Your task to perform on an android device: find which apps use the phone's location Image 0: 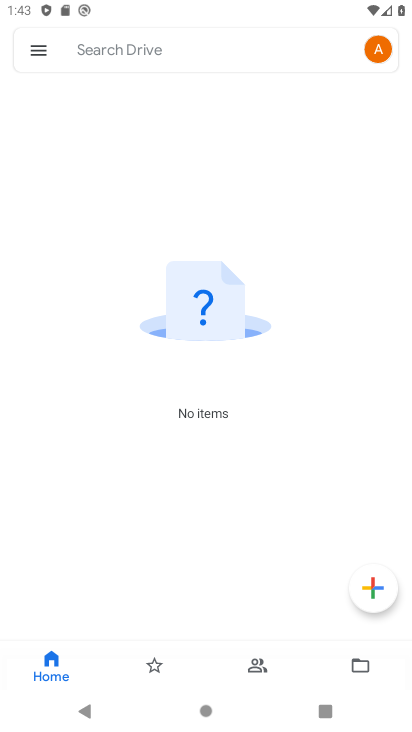
Step 0: press home button
Your task to perform on an android device: find which apps use the phone's location Image 1: 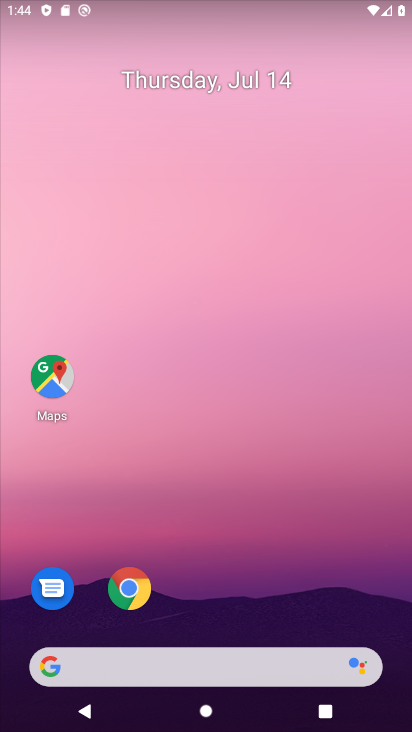
Step 1: drag from (135, 646) to (163, 164)
Your task to perform on an android device: find which apps use the phone's location Image 2: 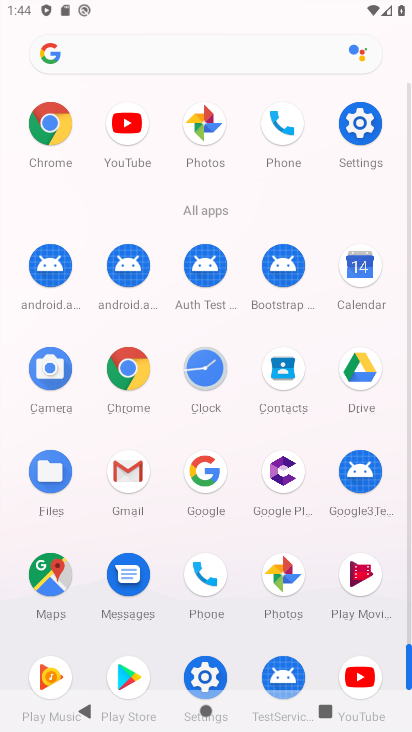
Step 2: click (364, 132)
Your task to perform on an android device: find which apps use the phone's location Image 3: 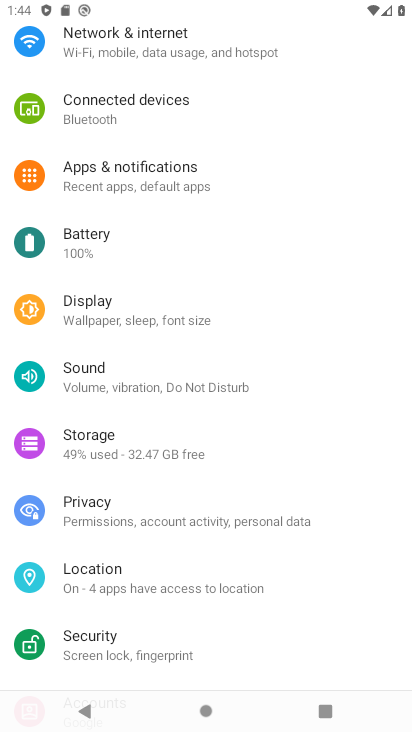
Step 3: click (130, 578)
Your task to perform on an android device: find which apps use the phone's location Image 4: 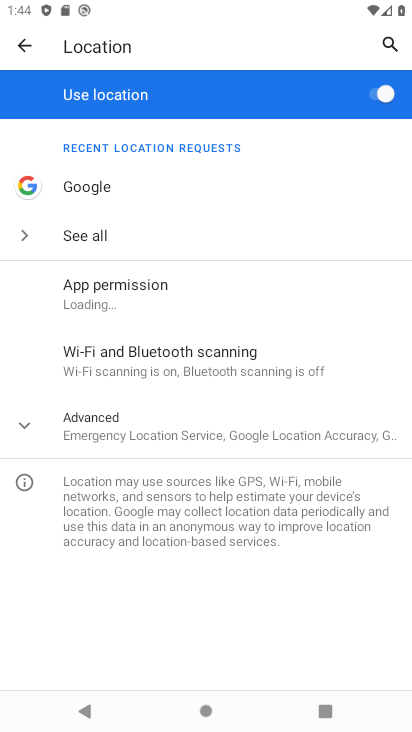
Step 4: click (201, 299)
Your task to perform on an android device: find which apps use the phone's location Image 5: 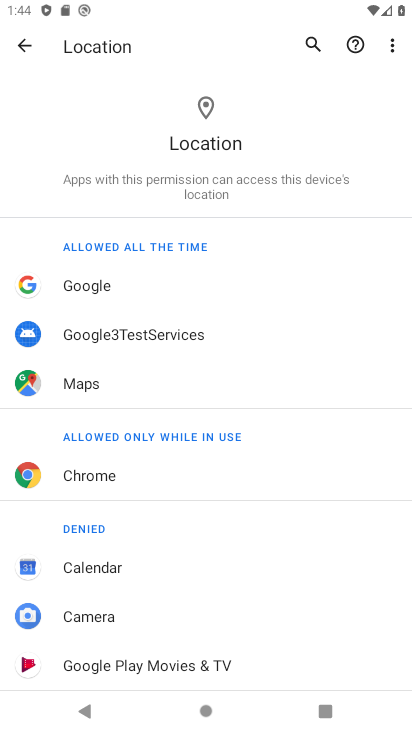
Step 5: task complete